Your task to perform on an android device: turn off location Image 0: 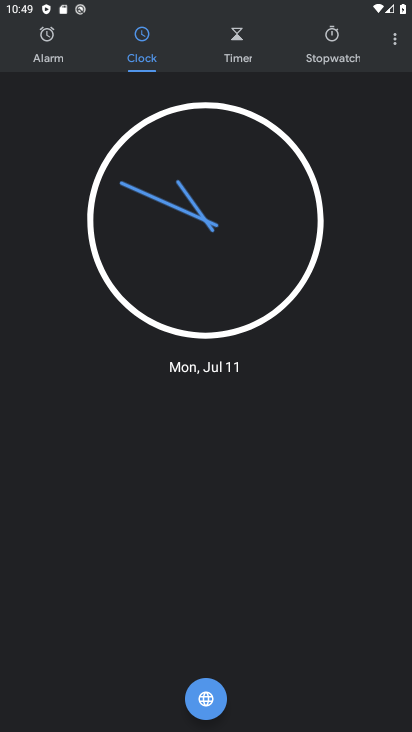
Step 0: press home button
Your task to perform on an android device: turn off location Image 1: 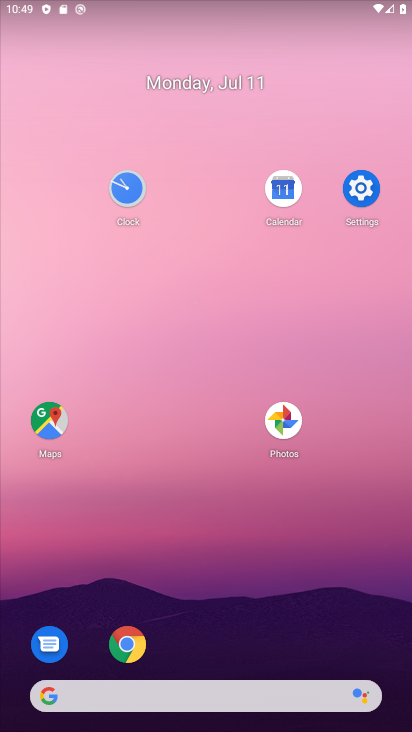
Step 1: click (381, 181)
Your task to perform on an android device: turn off location Image 2: 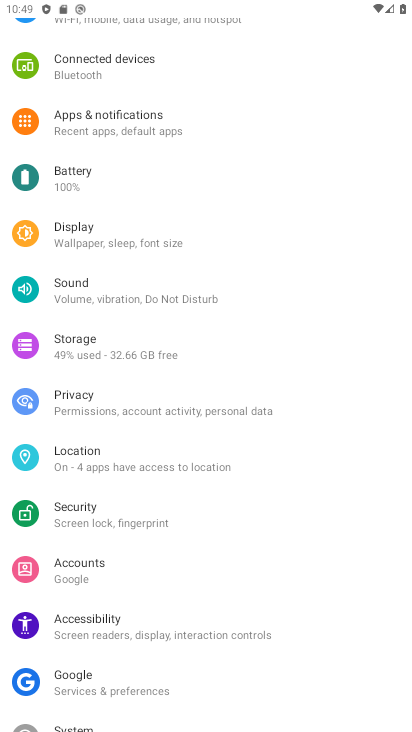
Step 2: drag from (165, 171) to (215, 479)
Your task to perform on an android device: turn off location Image 3: 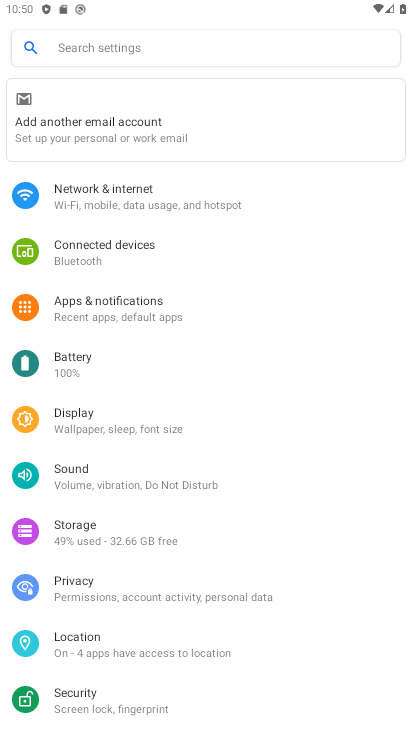
Step 3: click (136, 657)
Your task to perform on an android device: turn off location Image 4: 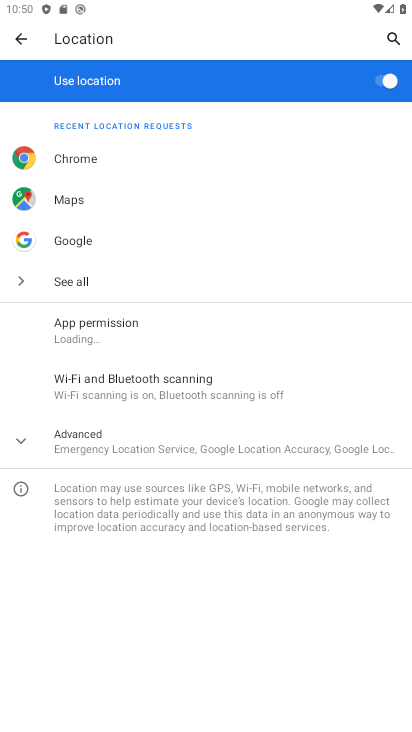
Step 4: click (374, 78)
Your task to perform on an android device: turn off location Image 5: 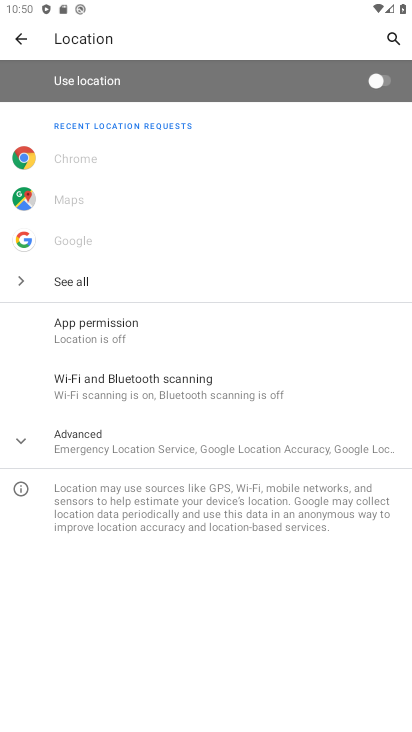
Step 5: task complete